Your task to perform on an android device: When is my next meeting? Image 0: 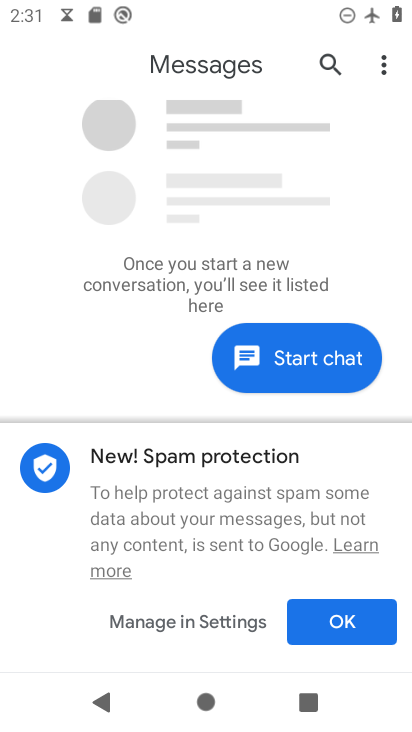
Step 0: press home button
Your task to perform on an android device: When is my next meeting? Image 1: 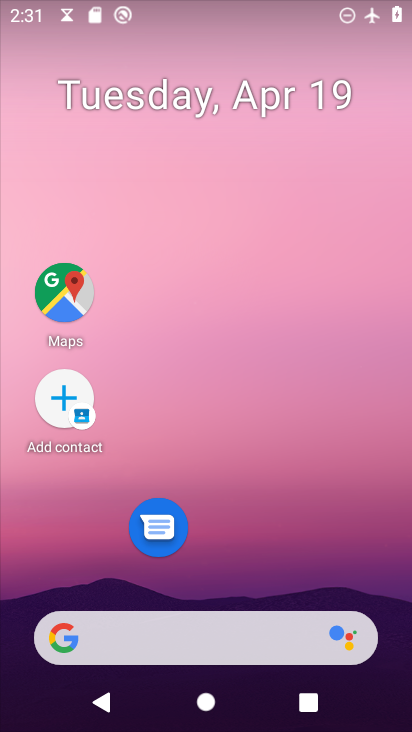
Step 1: drag from (214, 563) to (277, 190)
Your task to perform on an android device: When is my next meeting? Image 2: 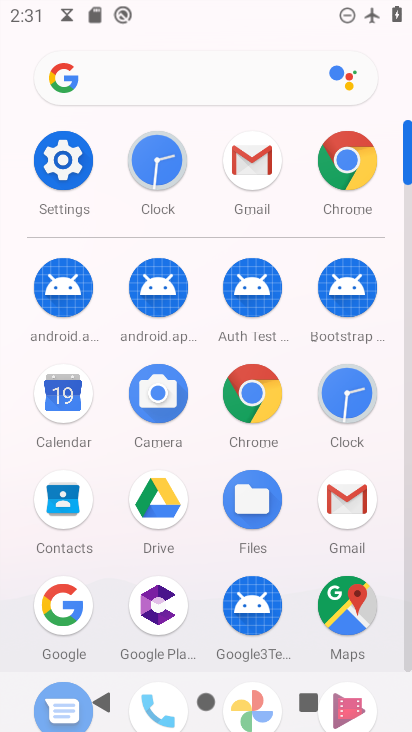
Step 2: click (65, 395)
Your task to perform on an android device: When is my next meeting? Image 3: 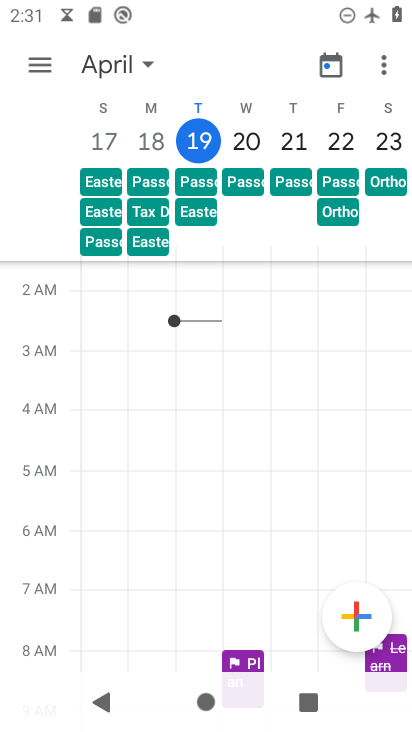
Step 3: click (144, 61)
Your task to perform on an android device: When is my next meeting? Image 4: 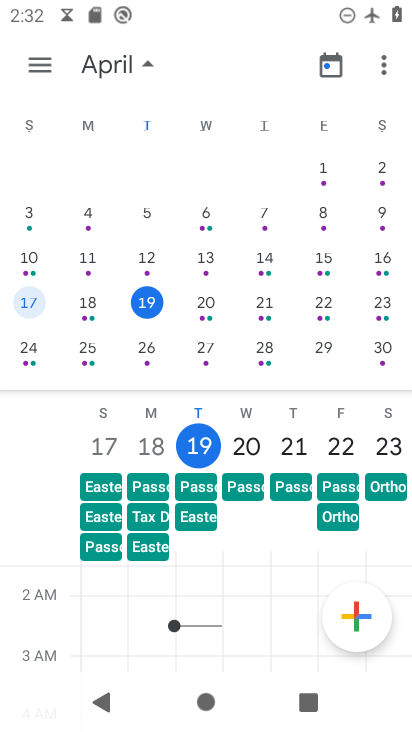
Step 4: click (322, 304)
Your task to perform on an android device: When is my next meeting? Image 5: 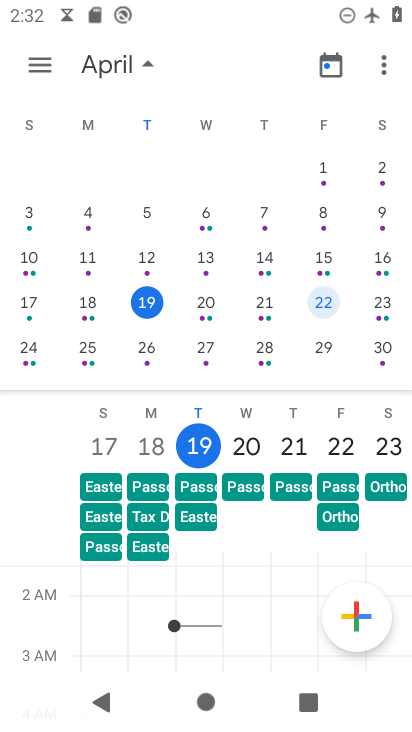
Step 5: click (322, 304)
Your task to perform on an android device: When is my next meeting? Image 6: 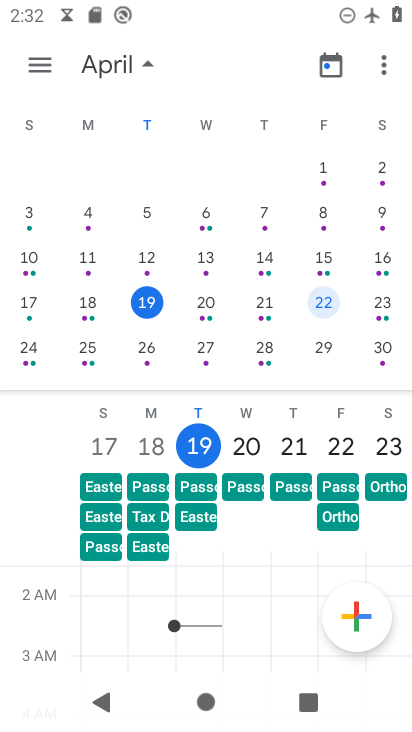
Step 6: click (38, 66)
Your task to perform on an android device: When is my next meeting? Image 7: 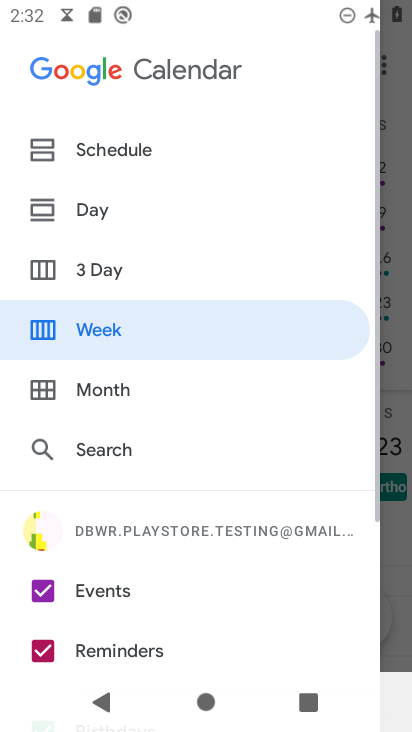
Step 7: click (106, 322)
Your task to perform on an android device: When is my next meeting? Image 8: 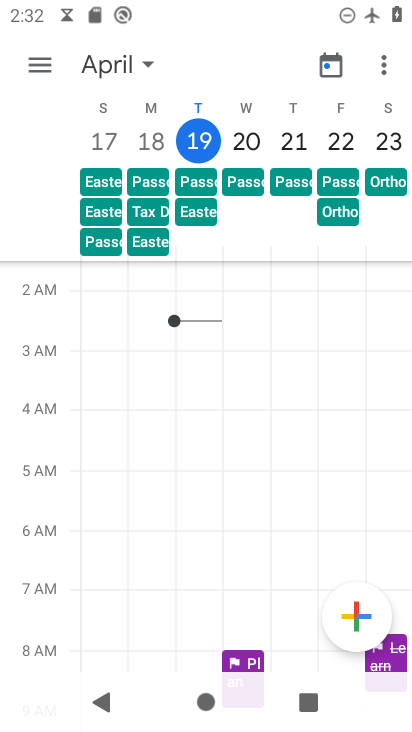
Step 8: task complete